Your task to perform on an android device: Open settings on Google Maps Image 0: 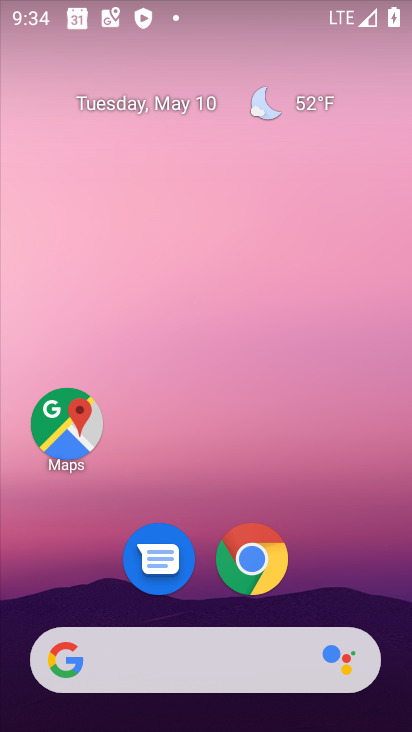
Step 0: drag from (376, 584) to (227, 10)
Your task to perform on an android device: Open settings on Google Maps Image 1: 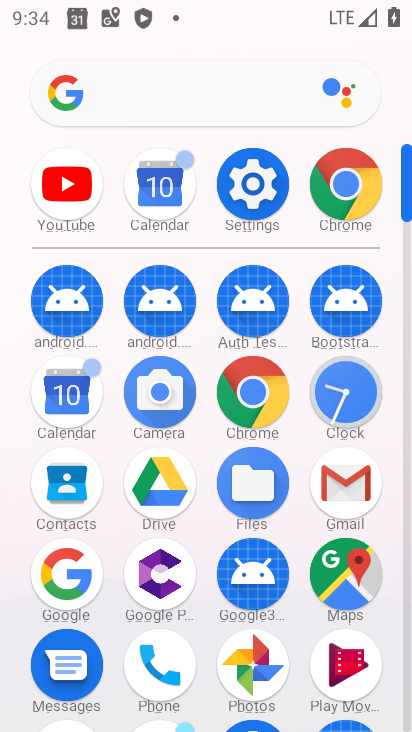
Step 1: drag from (7, 602) to (10, 255)
Your task to perform on an android device: Open settings on Google Maps Image 2: 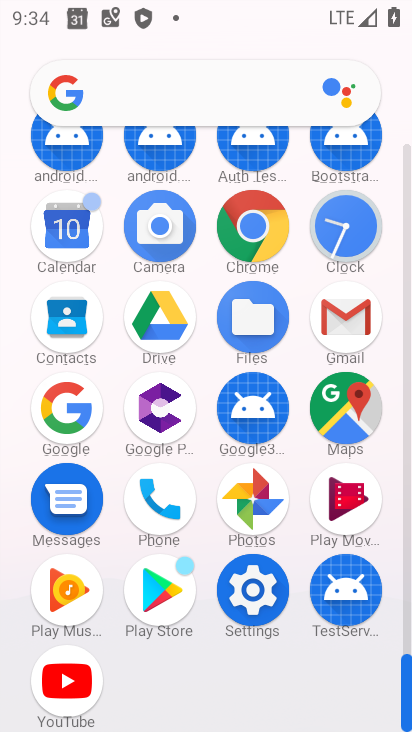
Step 2: click (340, 401)
Your task to perform on an android device: Open settings on Google Maps Image 3: 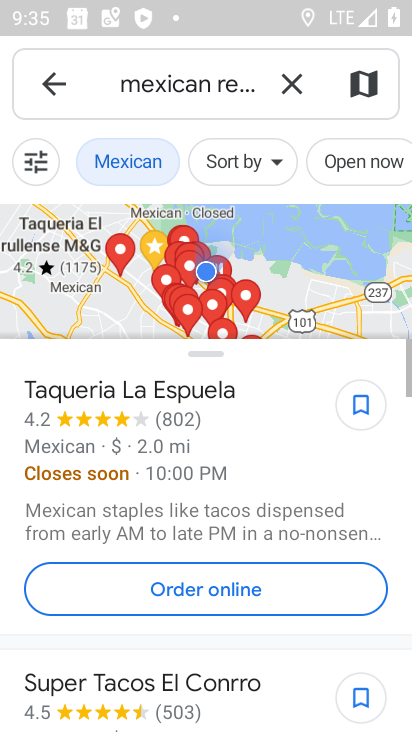
Step 3: click (39, 83)
Your task to perform on an android device: Open settings on Google Maps Image 4: 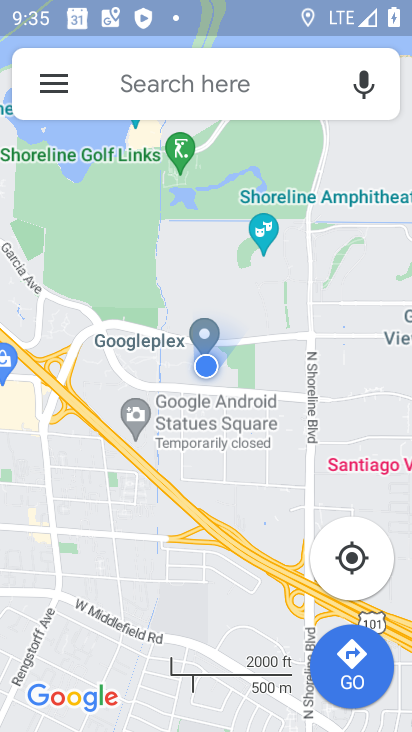
Step 4: click (48, 82)
Your task to perform on an android device: Open settings on Google Maps Image 5: 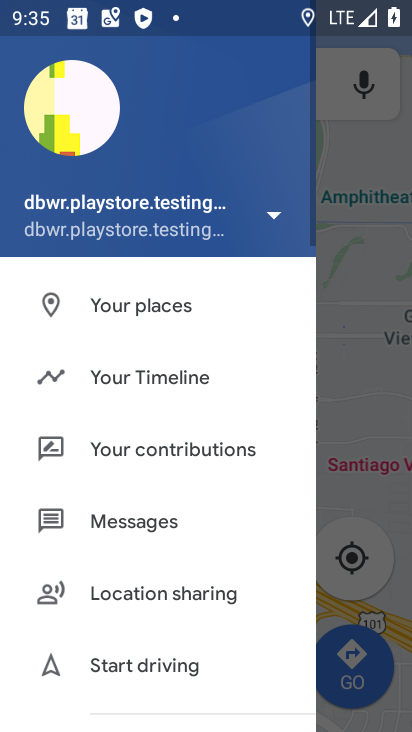
Step 5: drag from (200, 612) to (236, 107)
Your task to perform on an android device: Open settings on Google Maps Image 6: 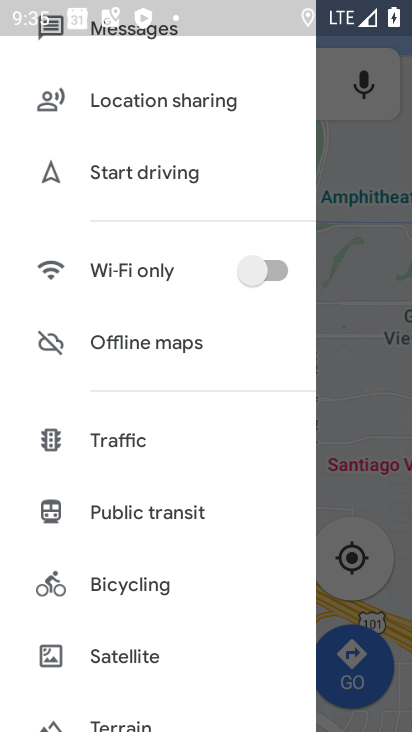
Step 6: drag from (167, 532) to (176, 108)
Your task to perform on an android device: Open settings on Google Maps Image 7: 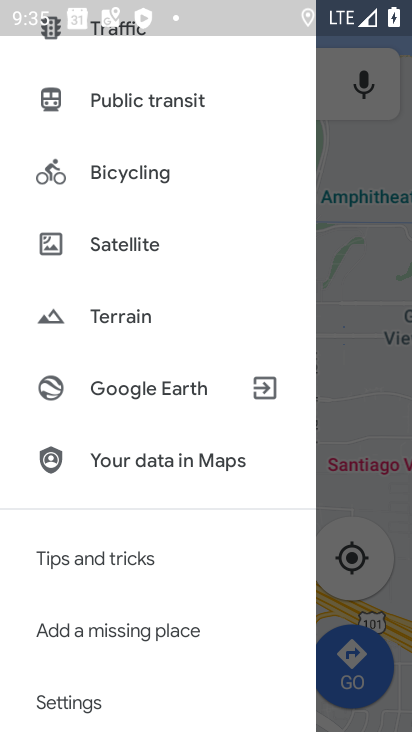
Step 7: drag from (117, 672) to (146, 235)
Your task to perform on an android device: Open settings on Google Maps Image 8: 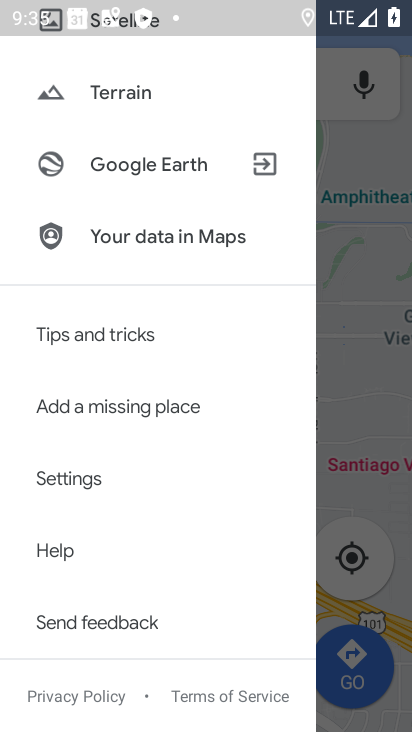
Step 8: click (92, 470)
Your task to perform on an android device: Open settings on Google Maps Image 9: 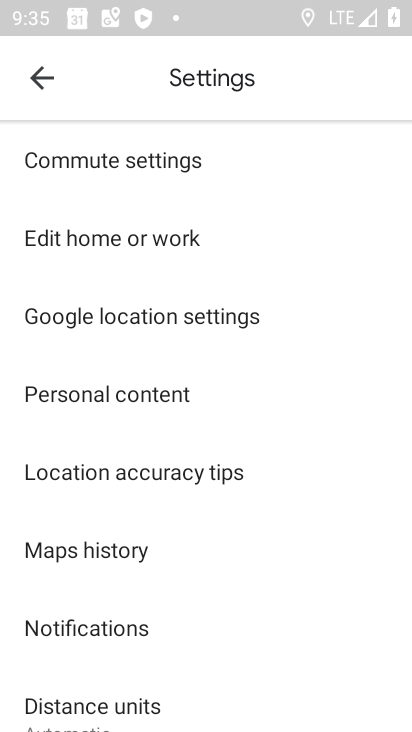
Step 9: task complete